Your task to perform on an android device: Open privacy settings Image 0: 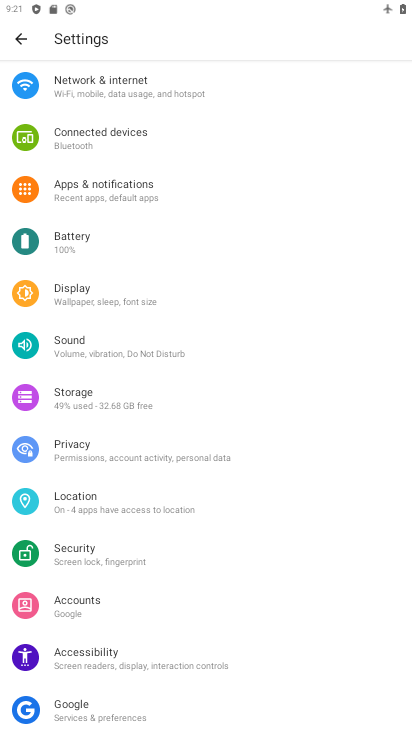
Step 0: click (89, 438)
Your task to perform on an android device: Open privacy settings Image 1: 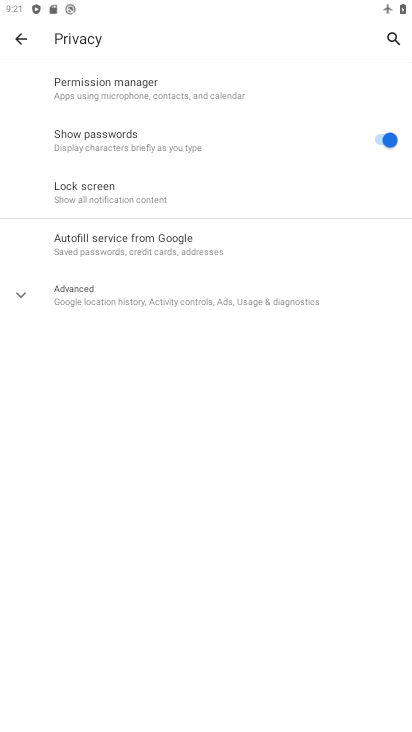
Step 1: task complete